Your task to perform on an android device: See recent photos Image 0: 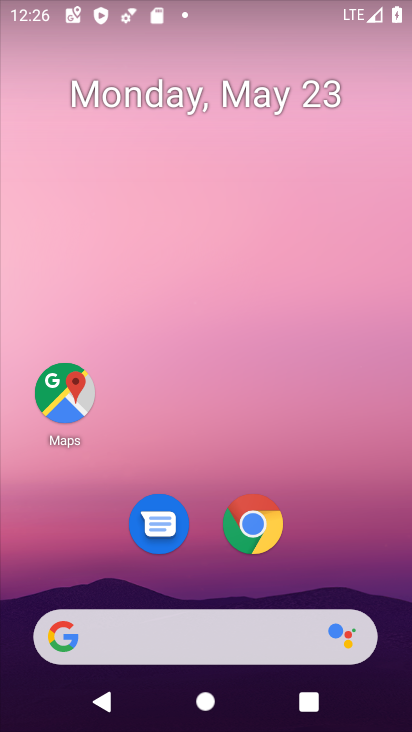
Step 0: drag from (212, 409) to (188, 1)
Your task to perform on an android device: See recent photos Image 1: 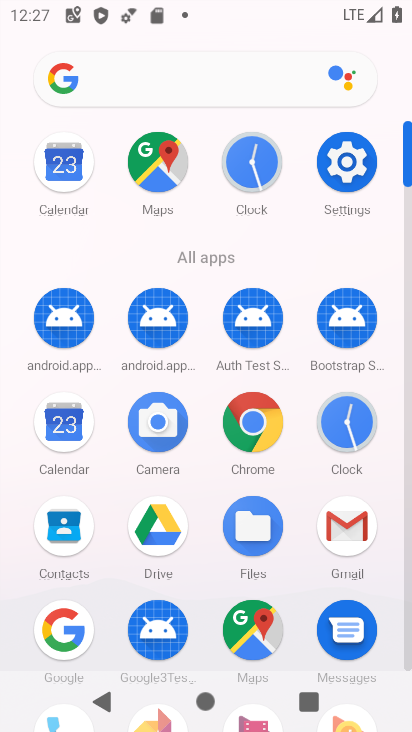
Step 1: drag from (199, 486) to (213, 196)
Your task to perform on an android device: See recent photos Image 2: 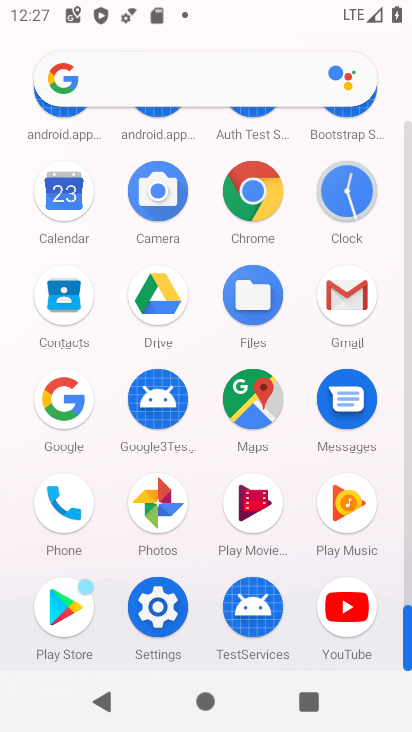
Step 2: click (165, 484)
Your task to perform on an android device: See recent photos Image 3: 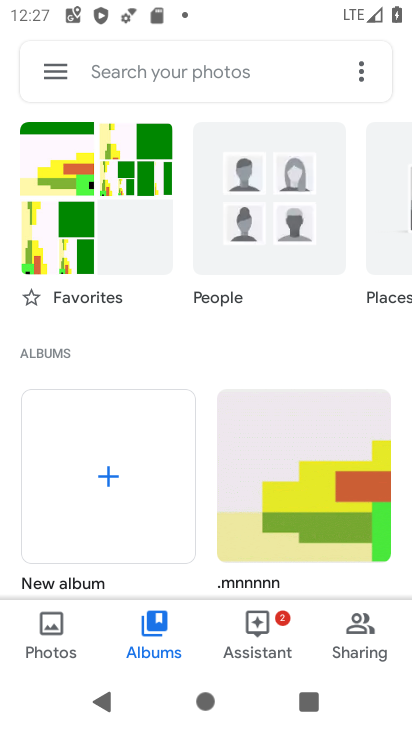
Step 3: click (47, 631)
Your task to perform on an android device: See recent photos Image 4: 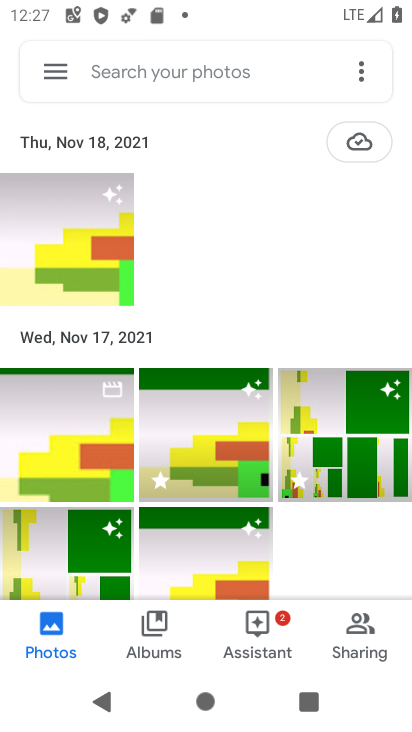
Step 4: task complete